Your task to perform on an android device: set an alarm Image 0: 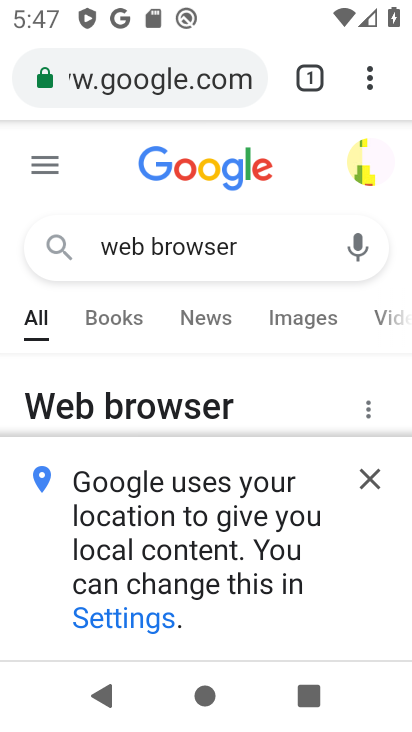
Step 0: press home button
Your task to perform on an android device: set an alarm Image 1: 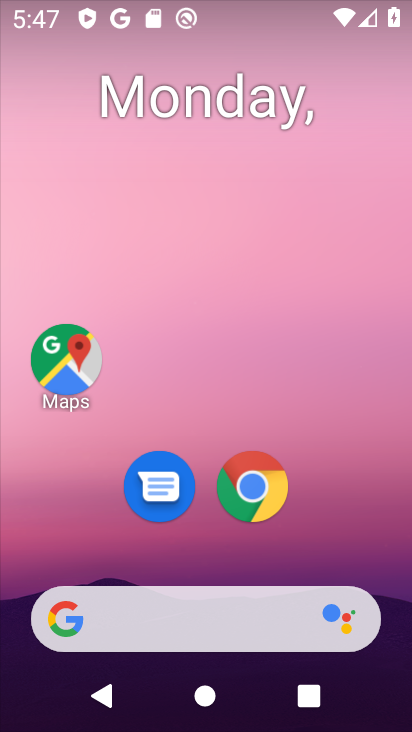
Step 1: drag from (326, 545) to (412, 0)
Your task to perform on an android device: set an alarm Image 2: 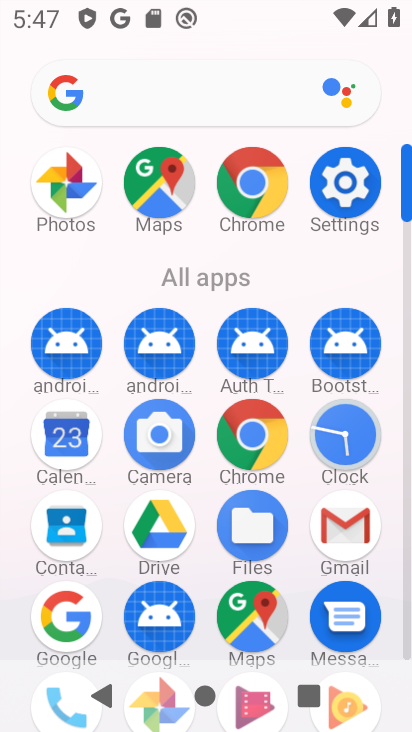
Step 2: click (336, 438)
Your task to perform on an android device: set an alarm Image 3: 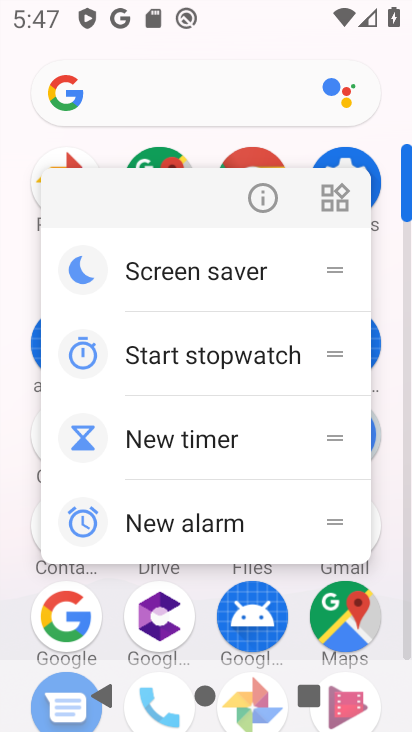
Step 3: click (403, 99)
Your task to perform on an android device: set an alarm Image 4: 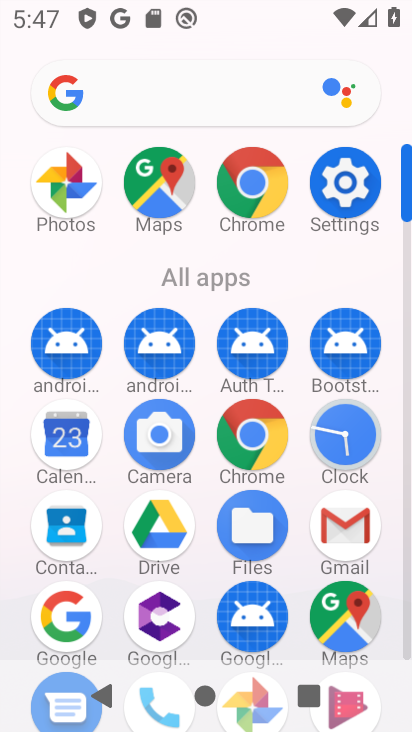
Step 4: click (331, 424)
Your task to perform on an android device: set an alarm Image 5: 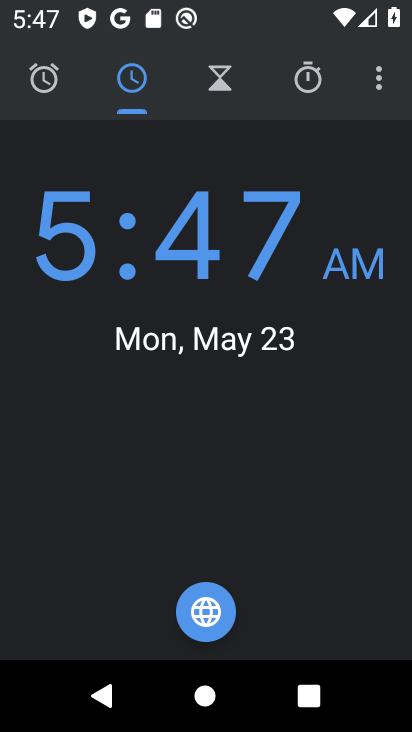
Step 5: click (35, 74)
Your task to perform on an android device: set an alarm Image 6: 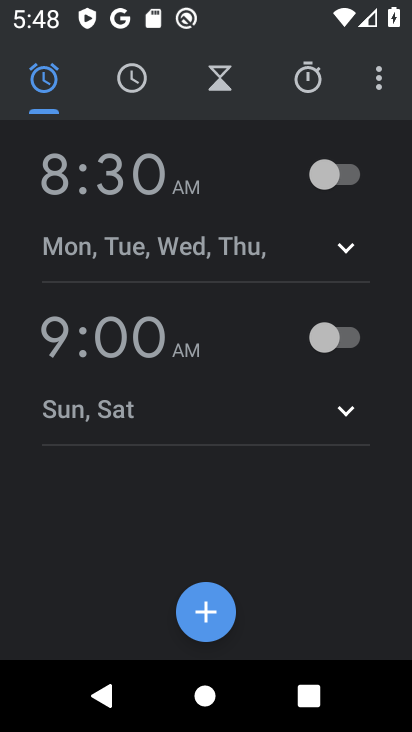
Step 6: click (208, 617)
Your task to perform on an android device: set an alarm Image 7: 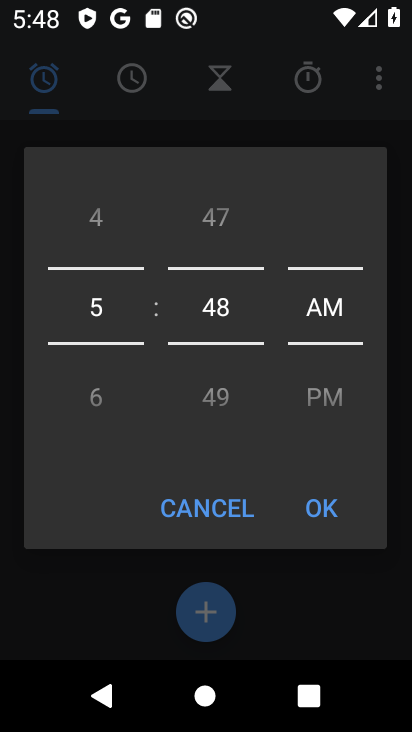
Step 7: drag from (86, 392) to (104, 302)
Your task to perform on an android device: set an alarm Image 8: 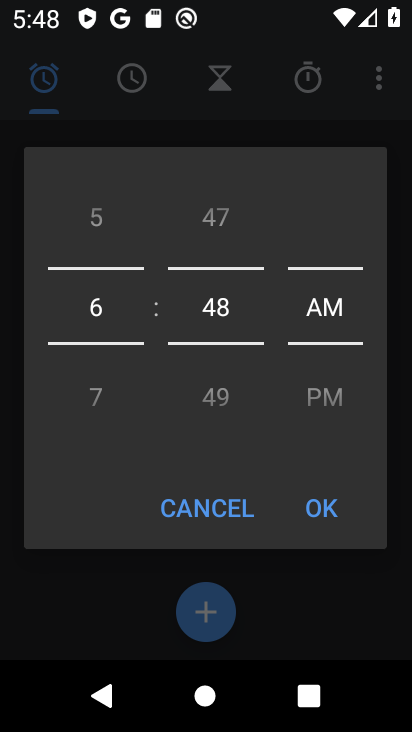
Step 8: drag from (211, 302) to (198, 424)
Your task to perform on an android device: set an alarm Image 9: 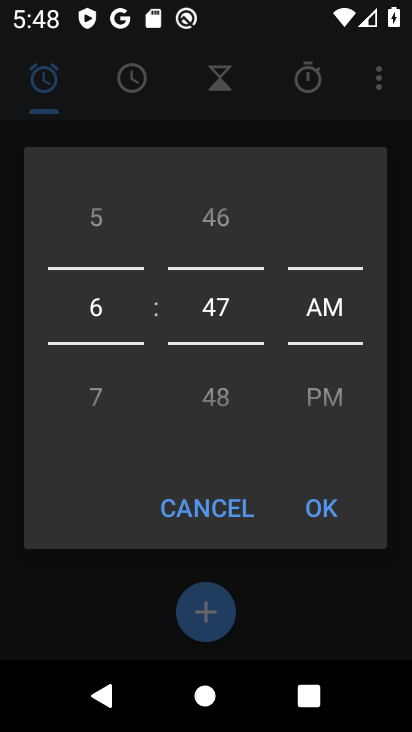
Step 9: drag from (232, 223) to (230, 416)
Your task to perform on an android device: set an alarm Image 10: 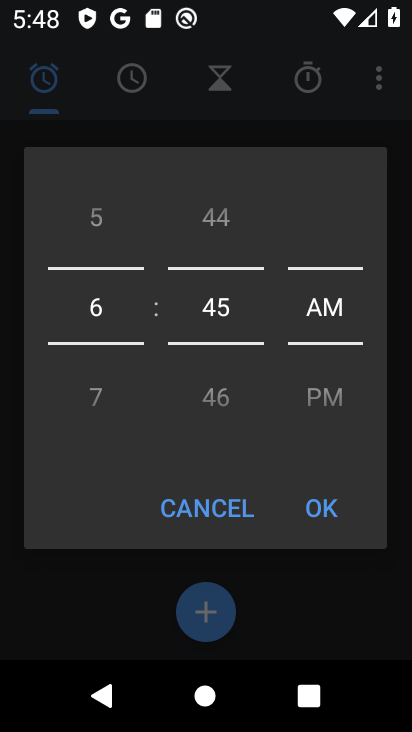
Step 10: drag from (230, 298) to (227, 420)
Your task to perform on an android device: set an alarm Image 11: 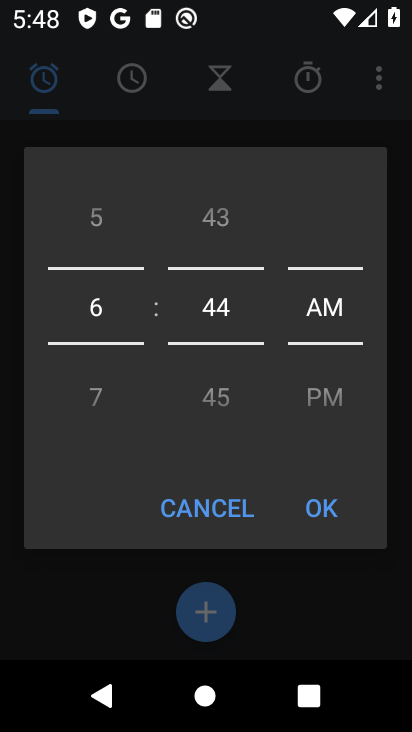
Step 11: drag from (240, 301) to (233, 414)
Your task to perform on an android device: set an alarm Image 12: 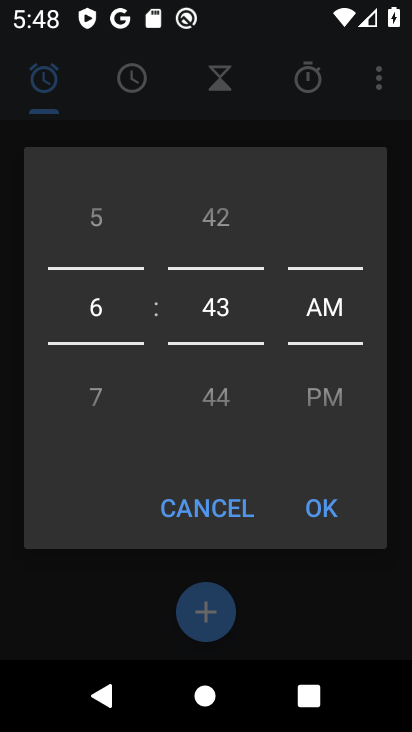
Step 12: drag from (237, 232) to (214, 442)
Your task to perform on an android device: set an alarm Image 13: 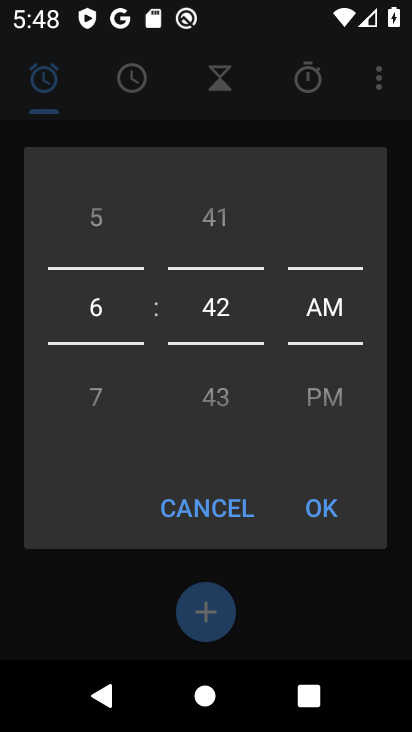
Step 13: drag from (251, 201) to (234, 435)
Your task to perform on an android device: set an alarm Image 14: 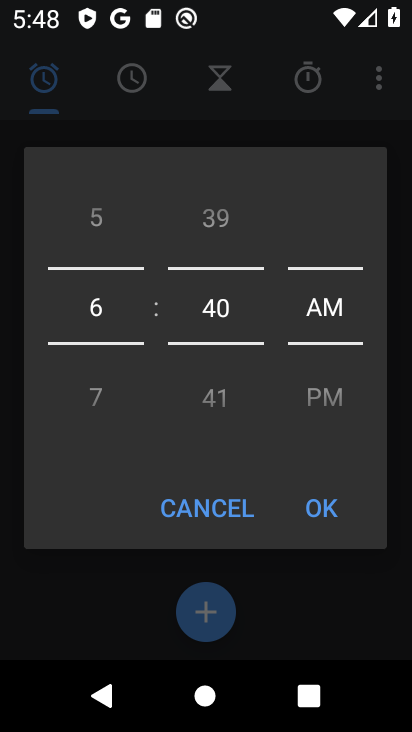
Step 14: drag from (263, 208) to (231, 426)
Your task to perform on an android device: set an alarm Image 15: 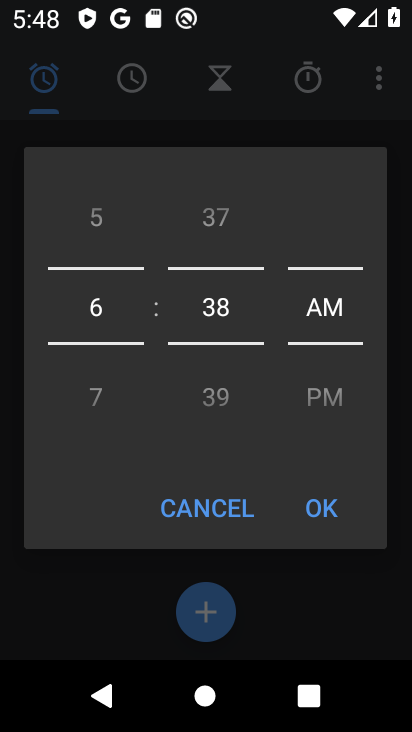
Step 15: drag from (263, 196) to (237, 398)
Your task to perform on an android device: set an alarm Image 16: 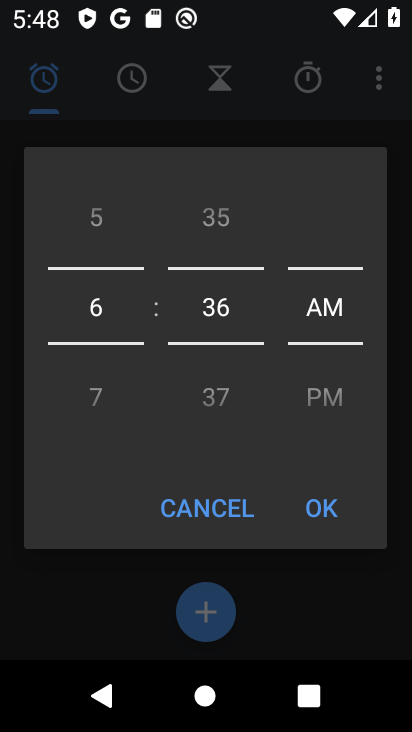
Step 16: drag from (255, 193) to (233, 399)
Your task to perform on an android device: set an alarm Image 17: 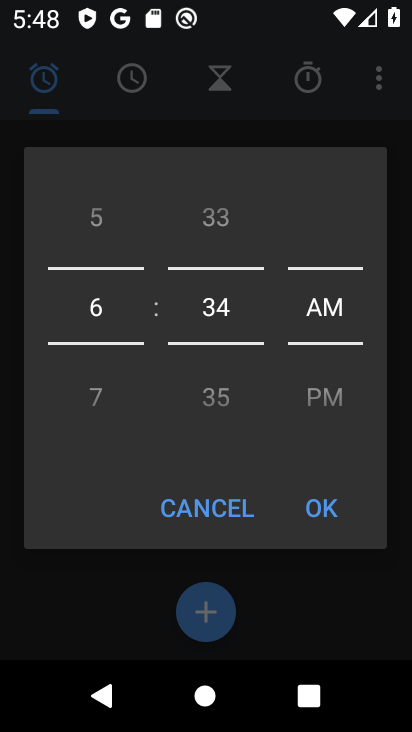
Step 17: drag from (226, 234) to (213, 353)
Your task to perform on an android device: set an alarm Image 18: 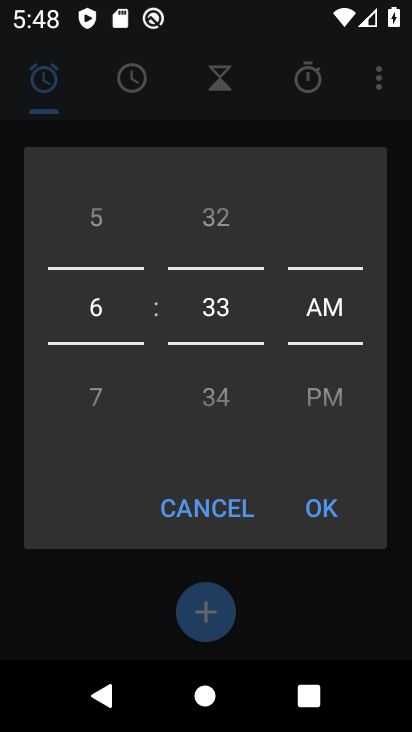
Step 18: click (319, 502)
Your task to perform on an android device: set an alarm Image 19: 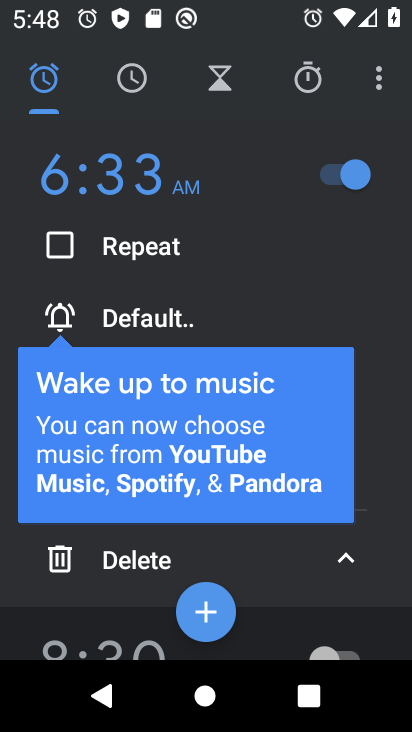
Step 19: task complete